Your task to perform on an android device: change the clock display to show seconds Image 0: 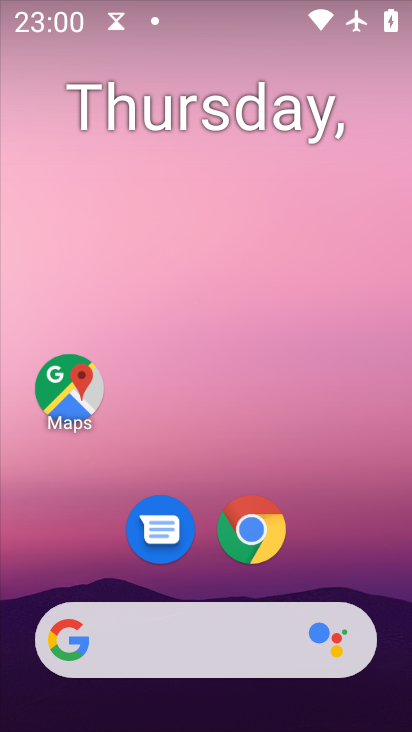
Step 0: drag from (310, 575) to (304, 86)
Your task to perform on an android device: change the clock display to show seconds Image 1: 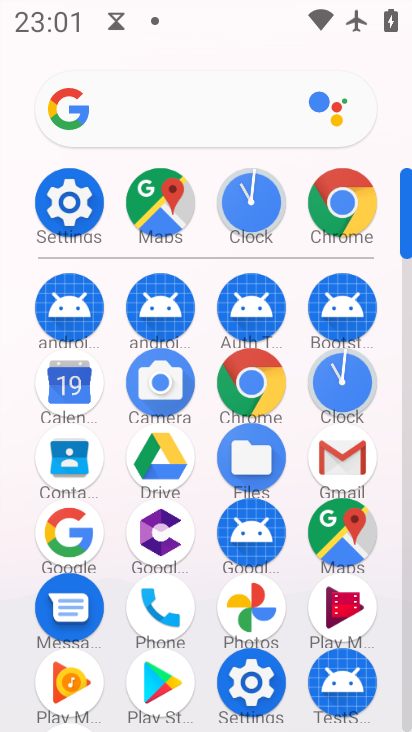
Step 1: click (335, 381)
Your task to perform on an android device: change the clock display to show seconds Image 2: 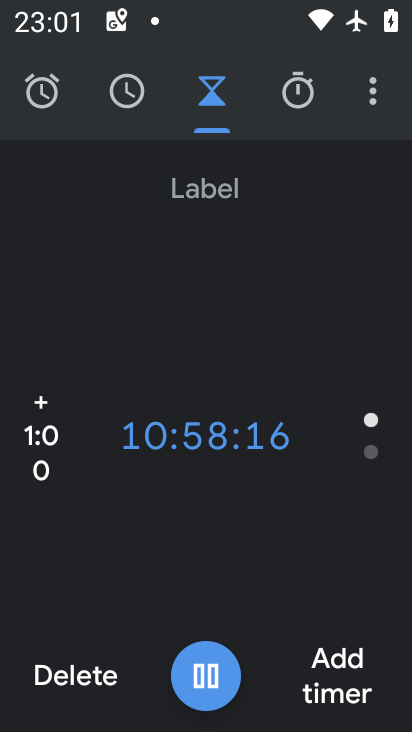
Step 2: click (375, 108)
Your task to perform on an android device: change the clock display to show seconds Image 3: 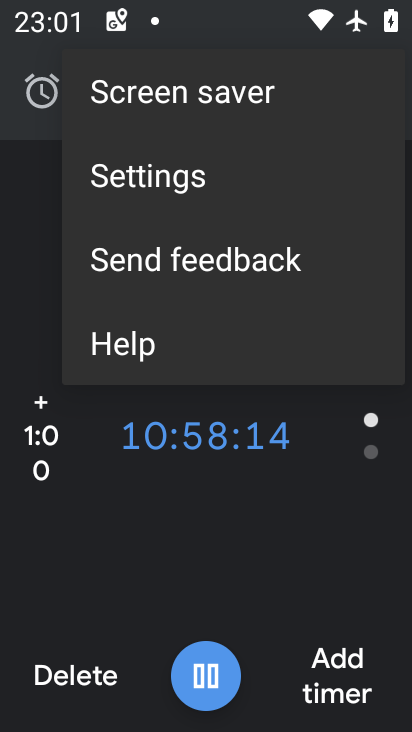
Step 3: click (169, 177)
Your task to perform on an android device: change the clock display to show seconds Image 4: 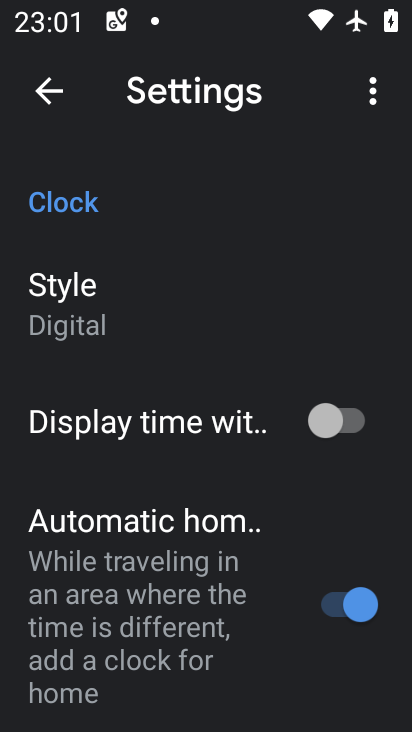
Step 4: click (355, 428)
Your task to perform on an android device: change the clock display to show seconds Image 5: 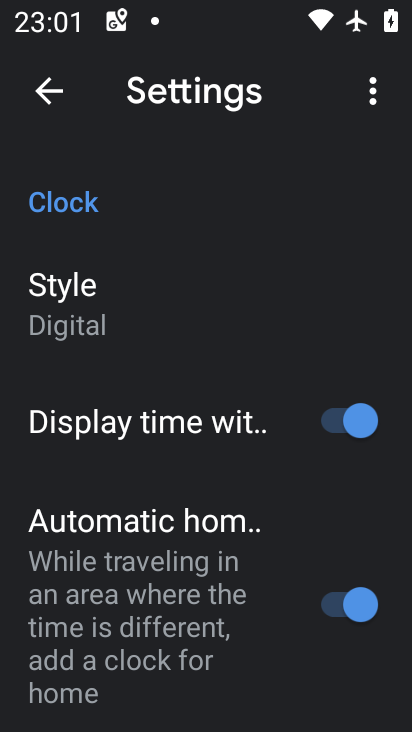
Step 5: task complete